Your task to perform on an android device: Is it going to rain tomorrow? Image 0: 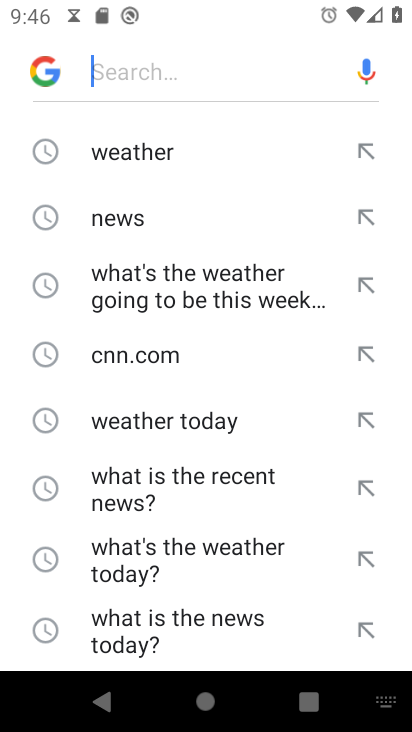
Step 0: press home button
Your task to perform on an android device: Is it going to rain tomorrow? Image 1: 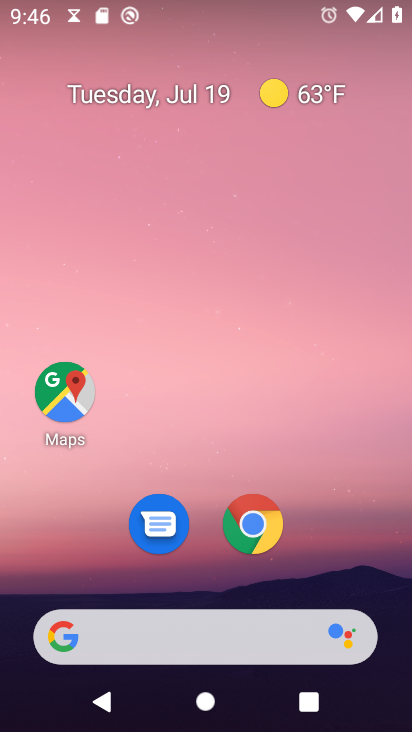
Step 1: click (168, 635)
Your task to perform on an android device: Is it going to rain tomorrow? Image 2: 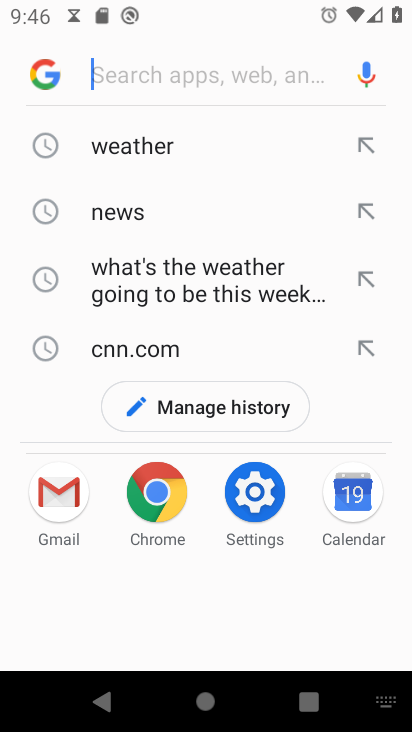
Step 2: click (160, 143)
Your task to perform on an android device: Is it going to rain tomorrow? Image 3: 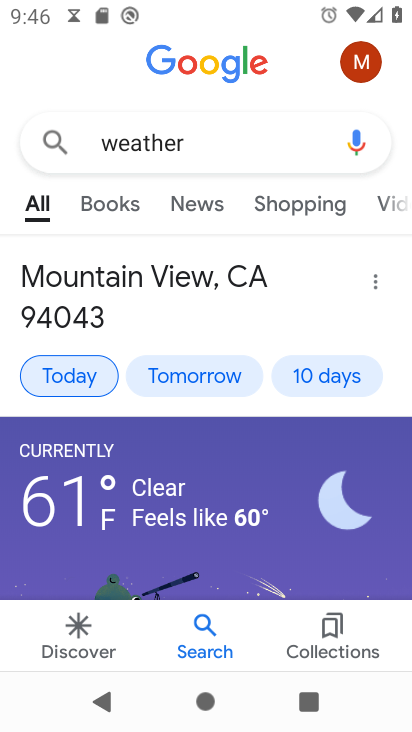
Step 3: click (170, 247)
Your task to perform on an android device: Is it going to rain tomorrow? Image 4: 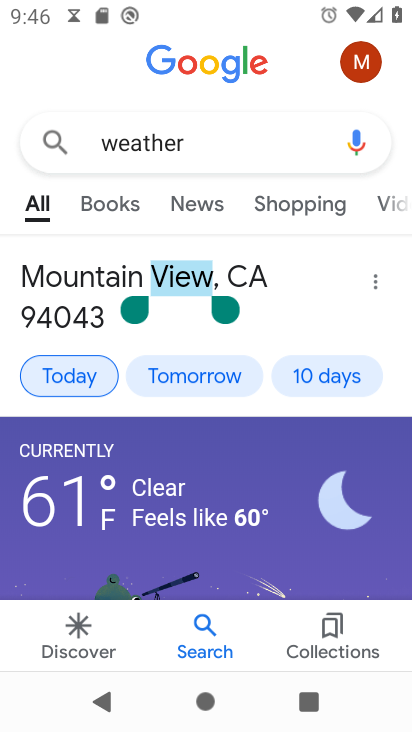
Step 4: click (190, 382)
Your task to perform on an android device: Is it going to rain tomorrow? Image 5: 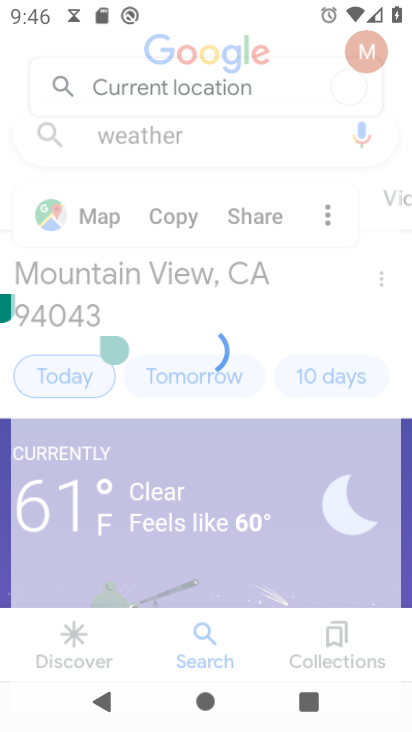
Step 5: click (196, 375)
Your task to perform on an android device: Is it going to rain tomorrow? Image 6: 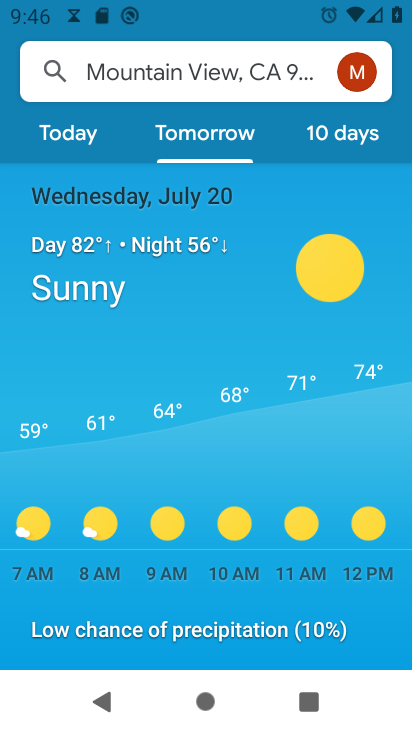
Step 6: task complete